Your task to perform on an android device: check battery use Image 0: 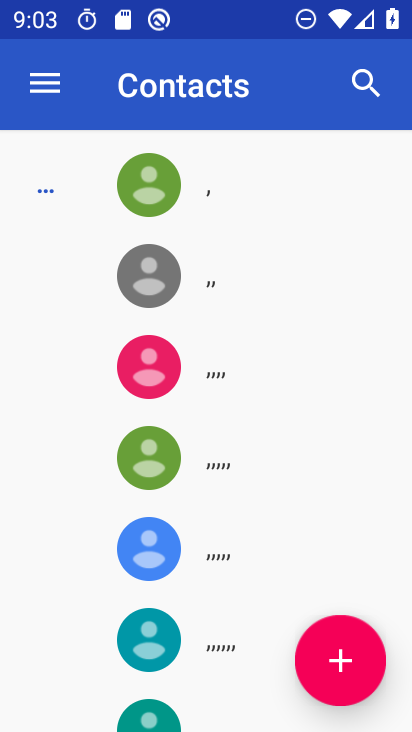
Step 0: press home button
Your task to perform on an android device: check battery use Image 1: 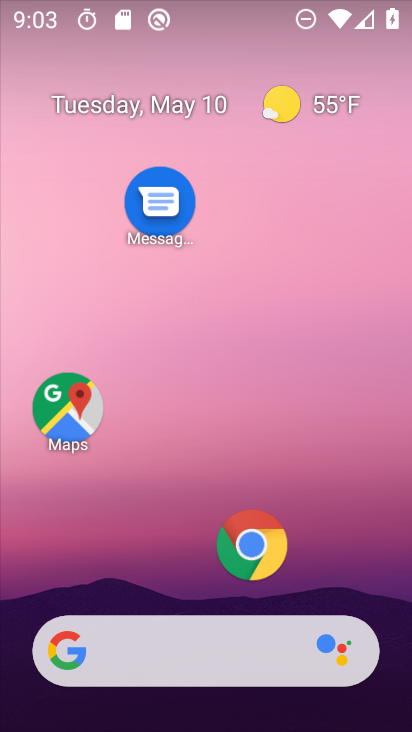
Step 1: drag from (175, 581) to (183, 280)
Your task to perform on an android device: check battery use Image 2: 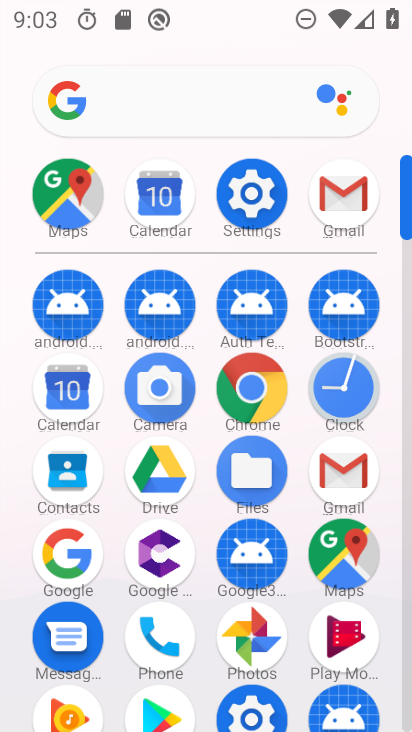
Step 2: click (228, 205)
Your task to perform on an android device: check battery use Image 3: 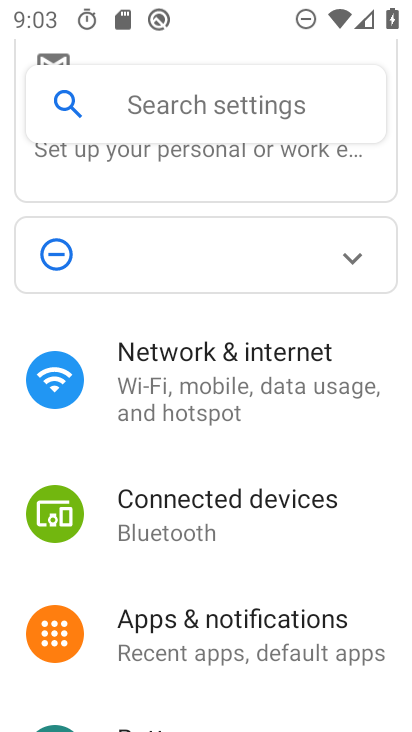
Step 3: drag from (234, 632) to (291, 327)
Your task to perform on an android device: check battery use Image 4: 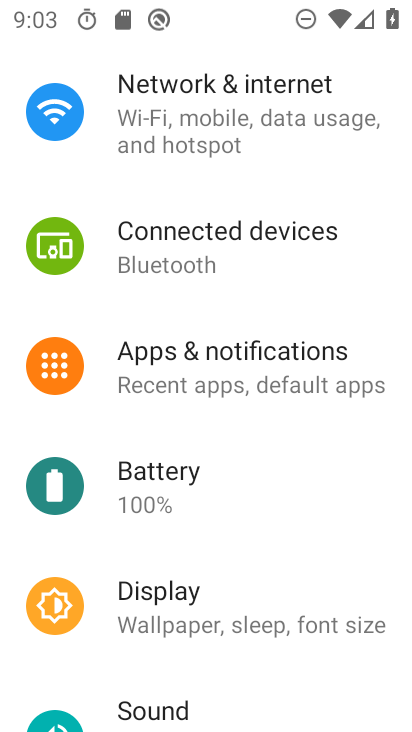
Step 4: click (244, 498)
Your task to perform on an android device: check battery use Image 5: 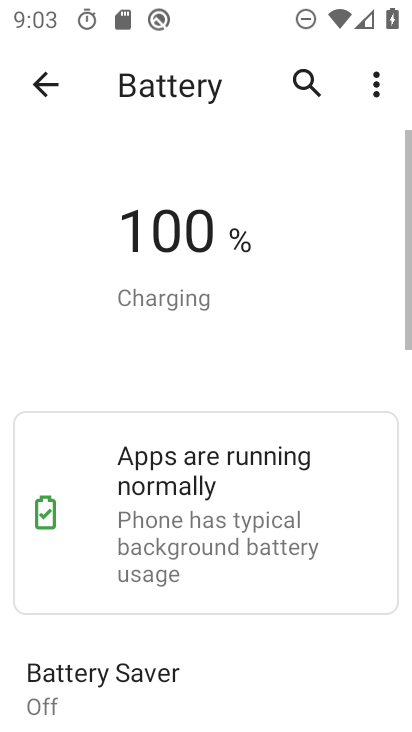
Step 5: drag from (375, 85) to (321, 171)
Your task to perform on an android device: check battery use Image 6: 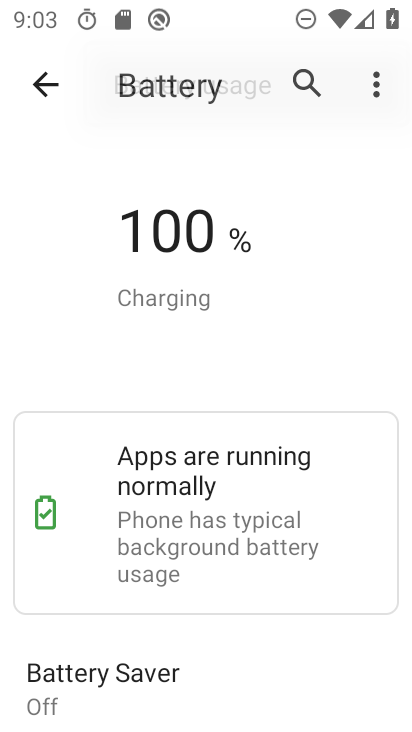
Step 6: click (368, 102)
Your task to perform on an android device: check battery use Image 7: 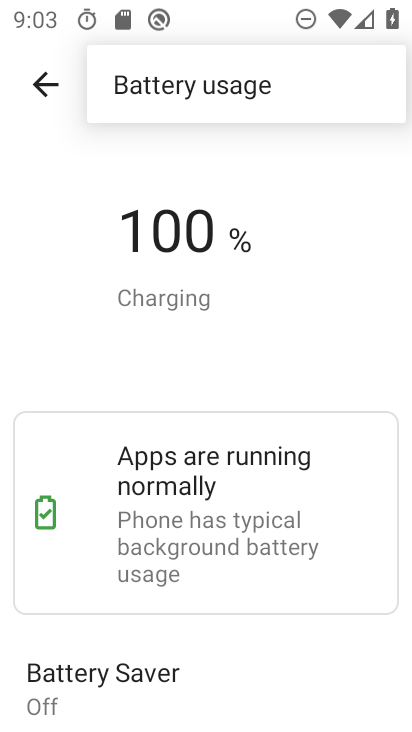
Step 7: click (368, 102)
Your task to perform on an android device: check battery use Image 8: 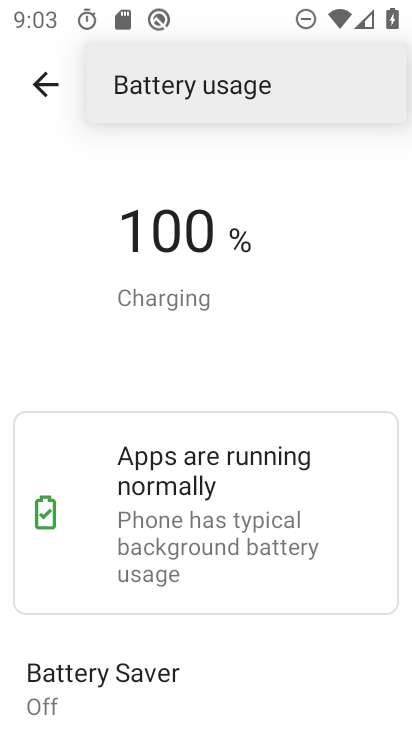
Step 8: click (293, 97)
Your task to perform on an android device: check battery use Image 9: 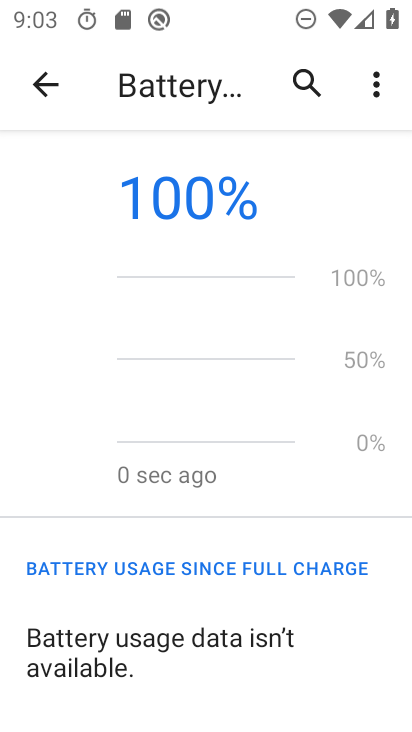
Step 9: task complete